Your task to perform on an android device: check data usage Image 0: 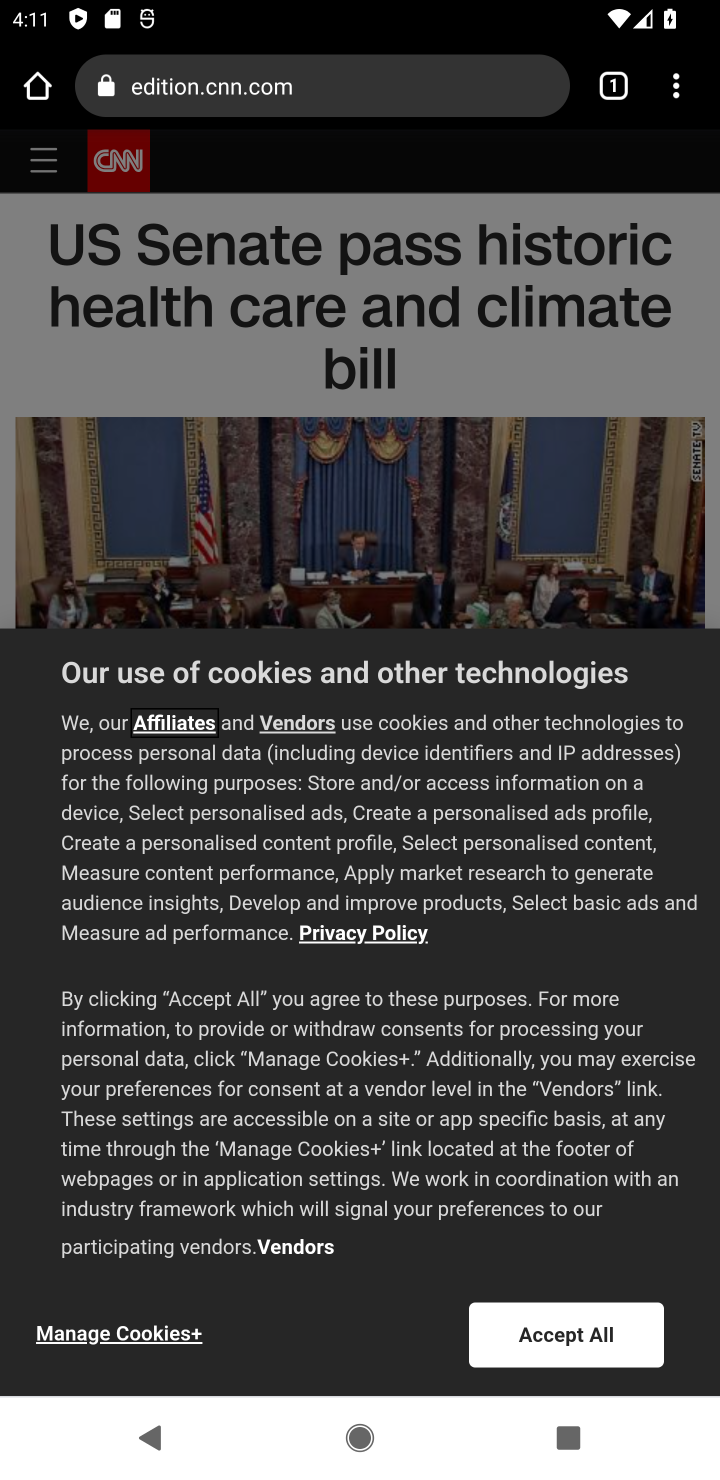
Step 0: press home button
Your task to perform on an android device: check data usage Image 1: 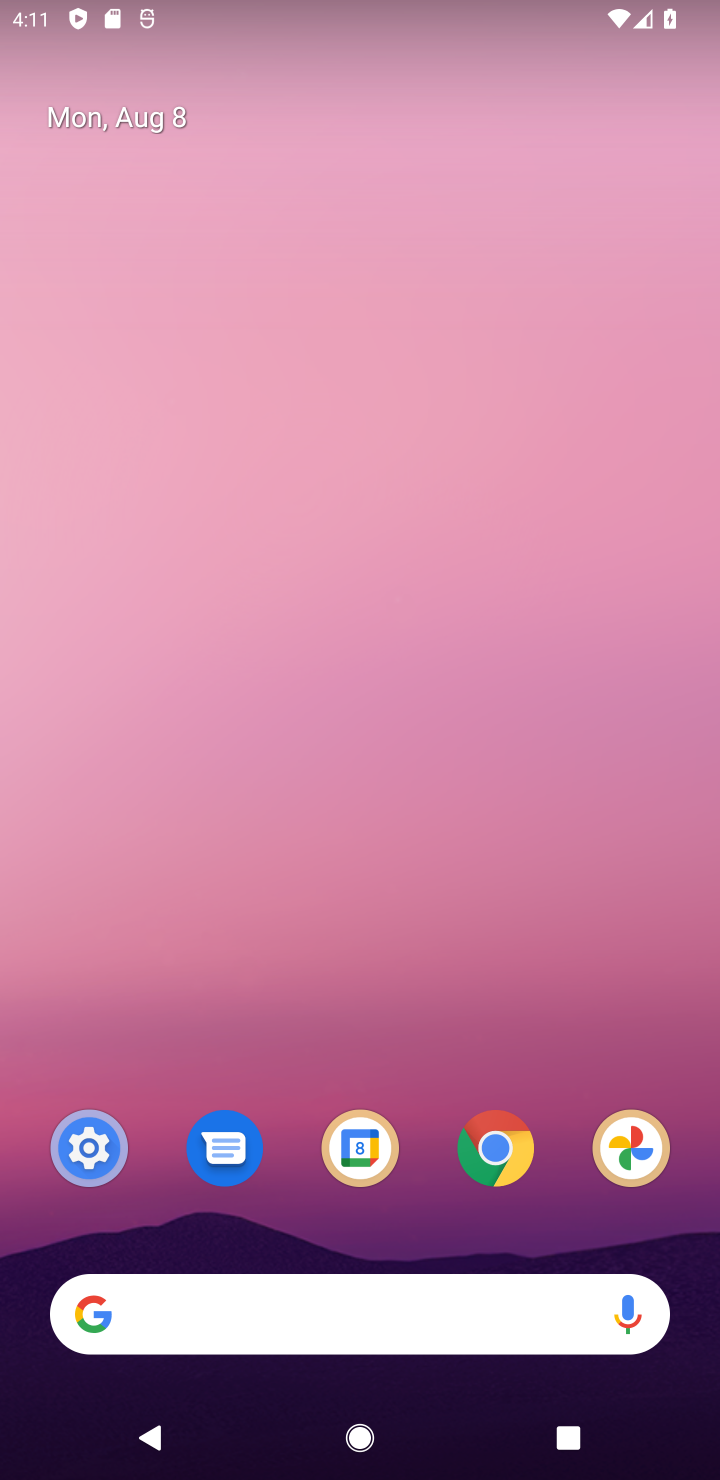
Step 1: drag from (507, 980) to (627, 29)
Your task to perform on an android device: check data usage Image 2: 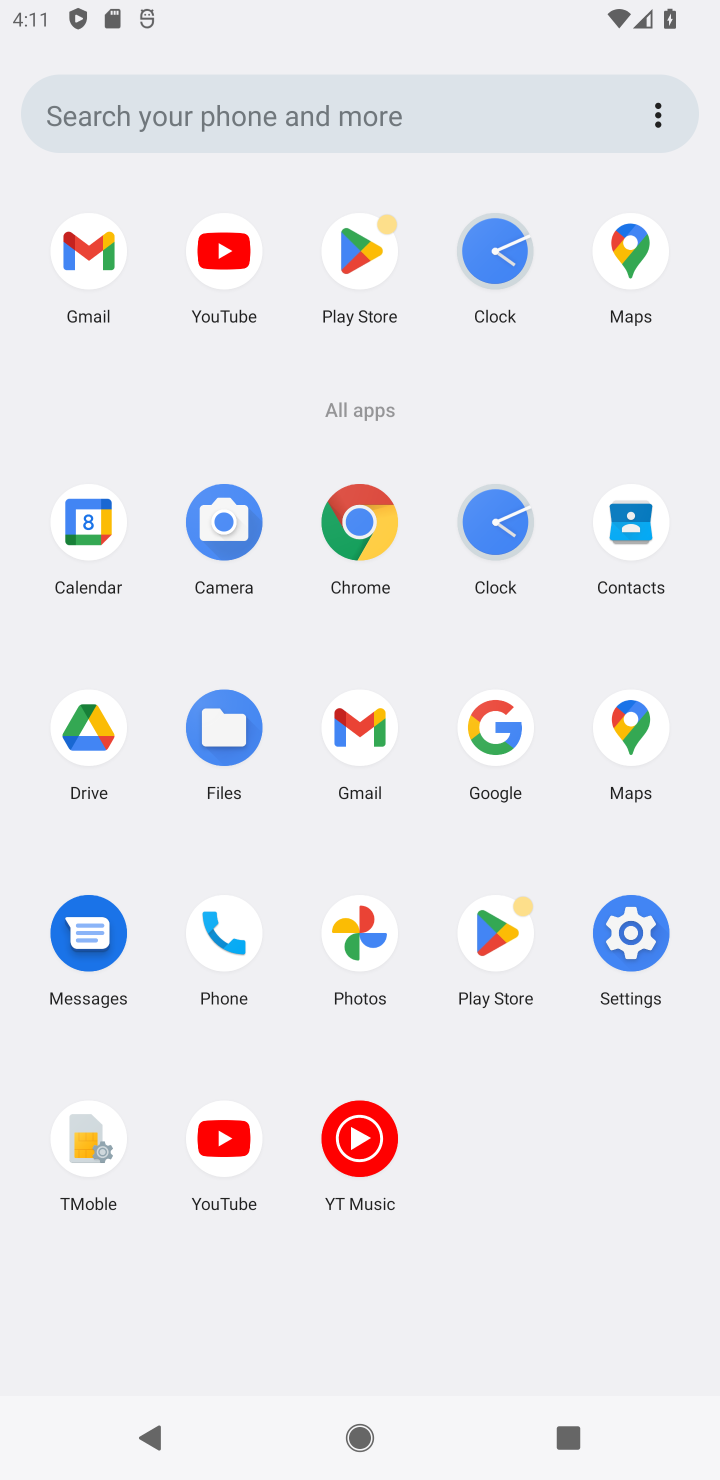
Step 2: click (621, 941)
Your task to perform on an android device: check data usage Image 3: 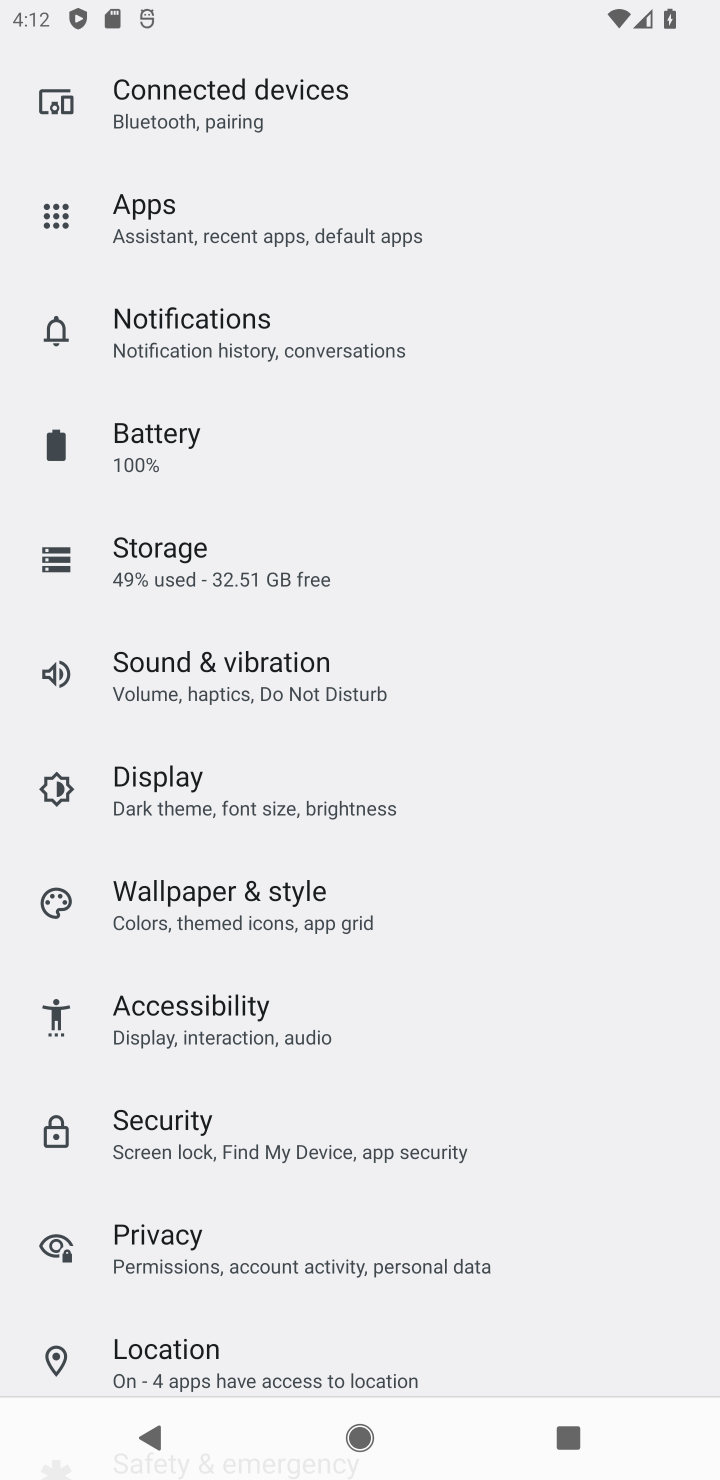
Step 3: drag from (93, 246) to (203, 1220)
Your task to perform on an android device: check data usage Image 4: 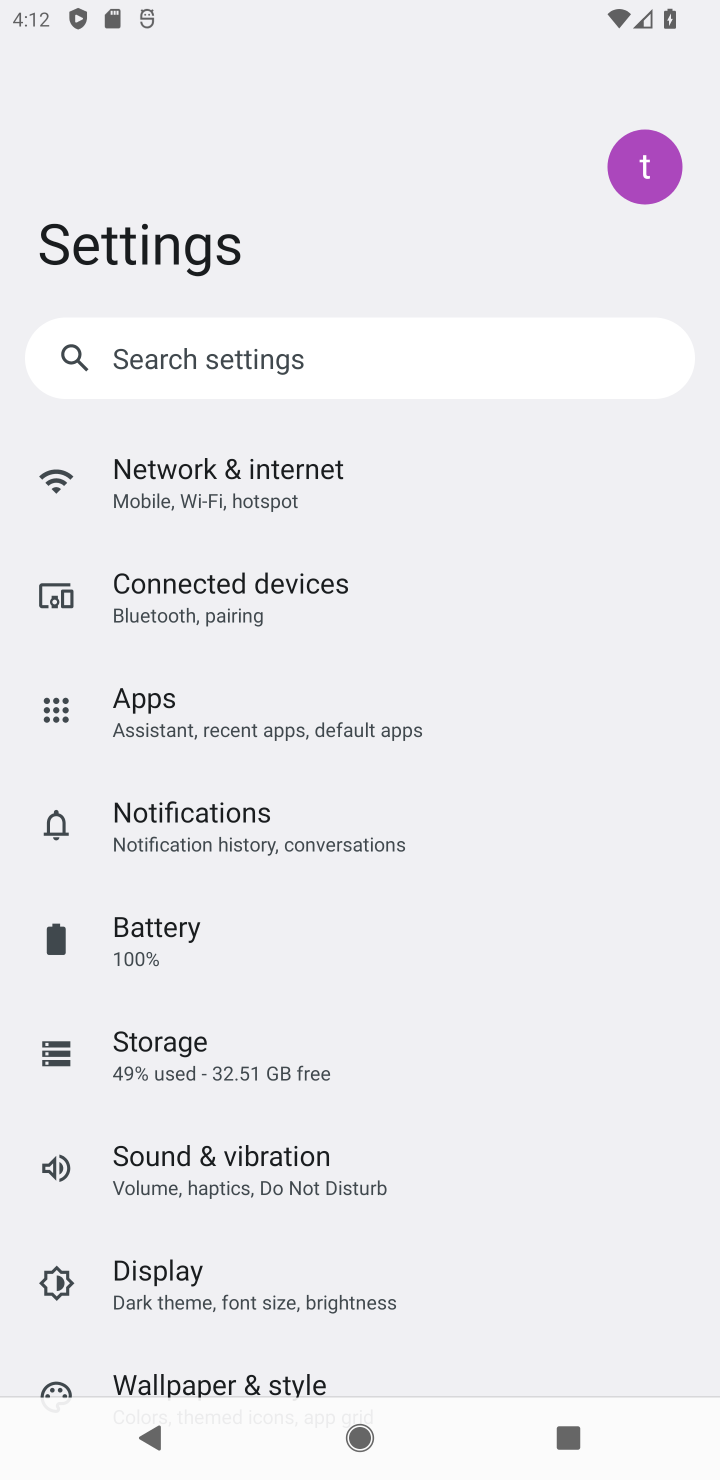
Step 4: click (150, 477)
Your task to perform on an android device: check data usage Image 5: 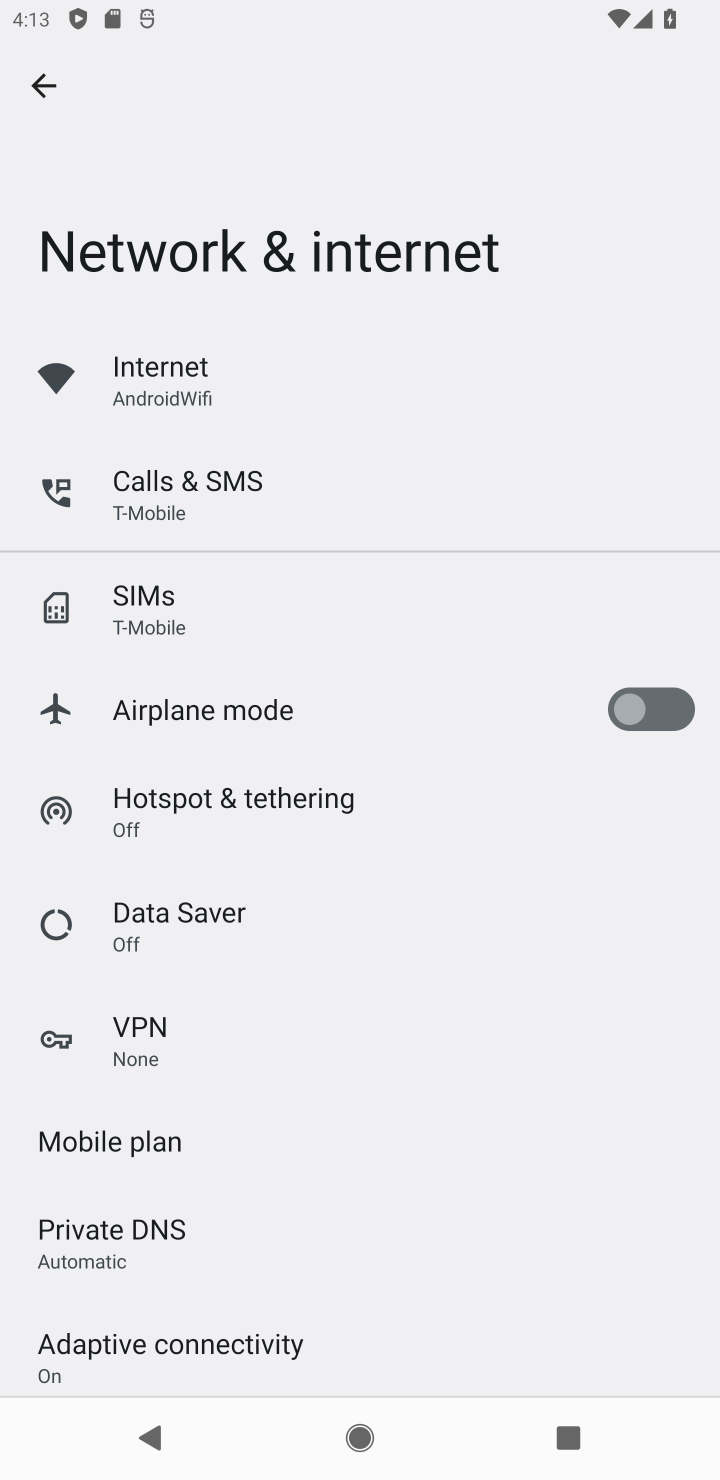
Step 5: click (137, 396)
Your task to perform on an android device: check data usage Image 6: 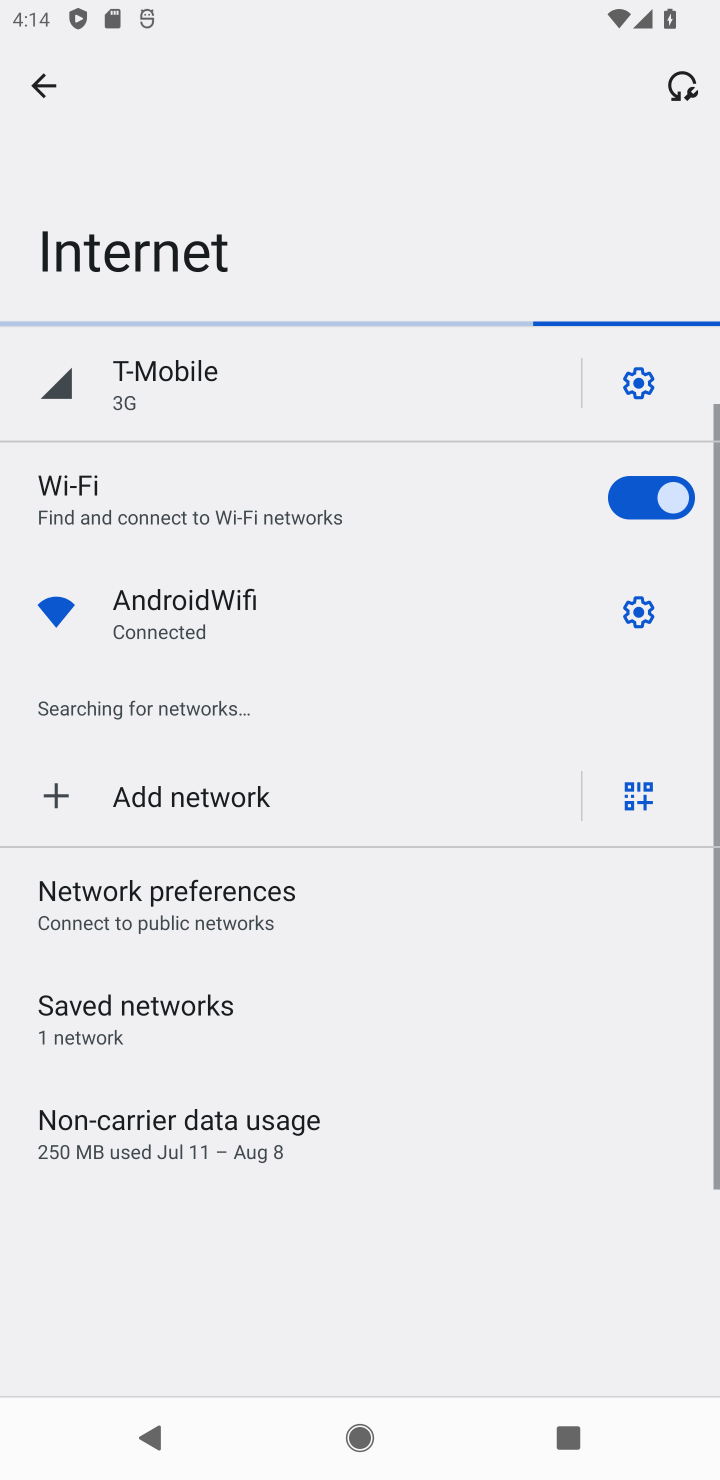
Step 6: task complete